Your task to perform on an android device: turn off picture-in-picture Image 0: 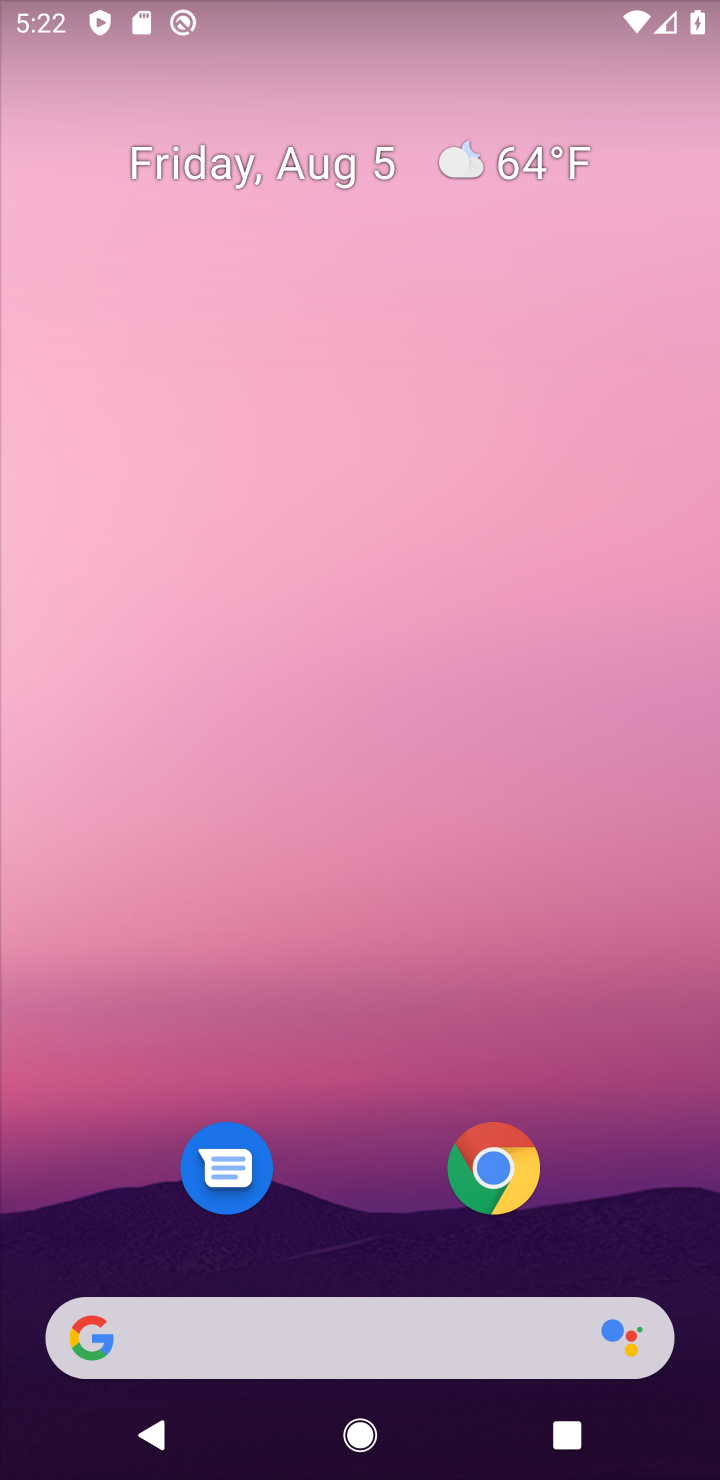
Step 0: drag from (368, 1225) to (368, 1151)
Your task to perform on an android device: turn off picture-in-picture Image 1: 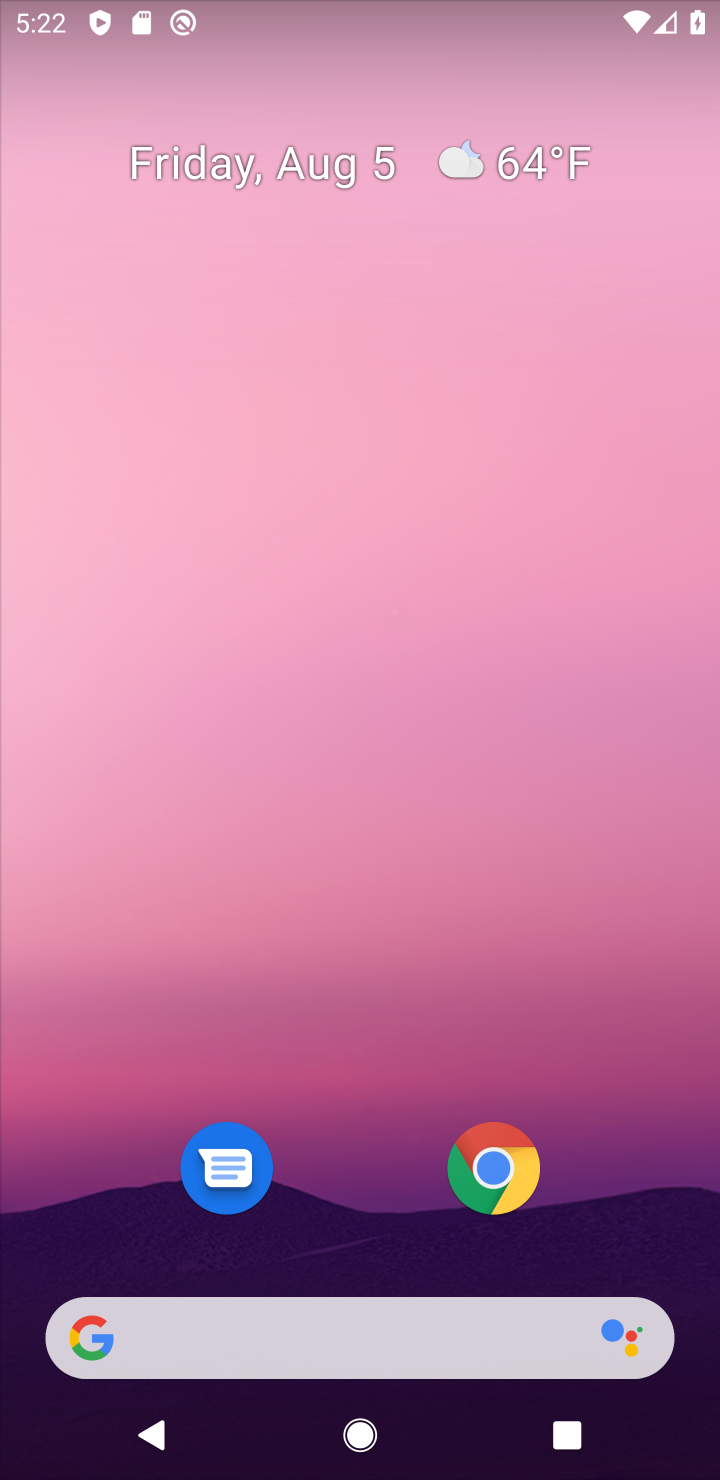
Step 1: click (495, 1170)
Your task to perform on an android device: turn off picture-in-picture Image 2: 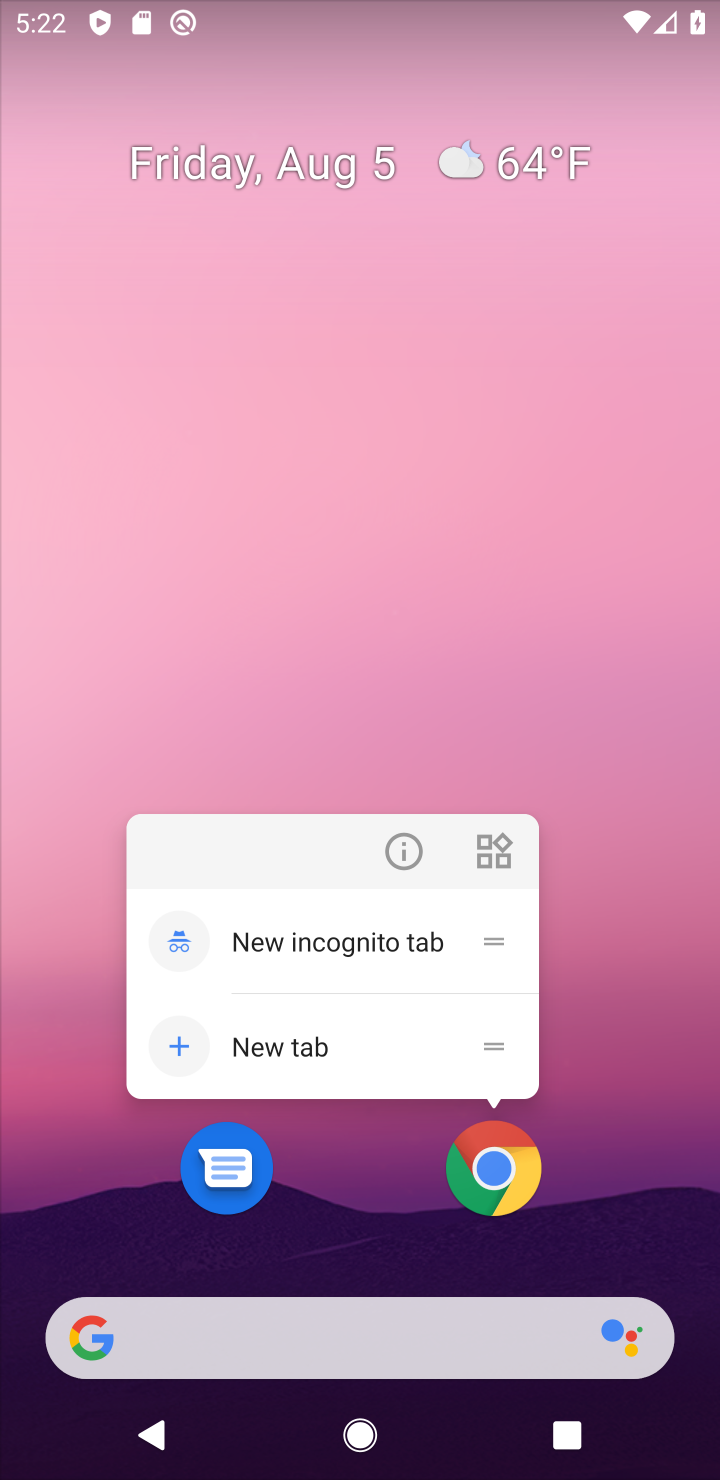
Step 2: click (399, 845)
Your task to perform on an android device: turn off picture-in-picture Image 3: 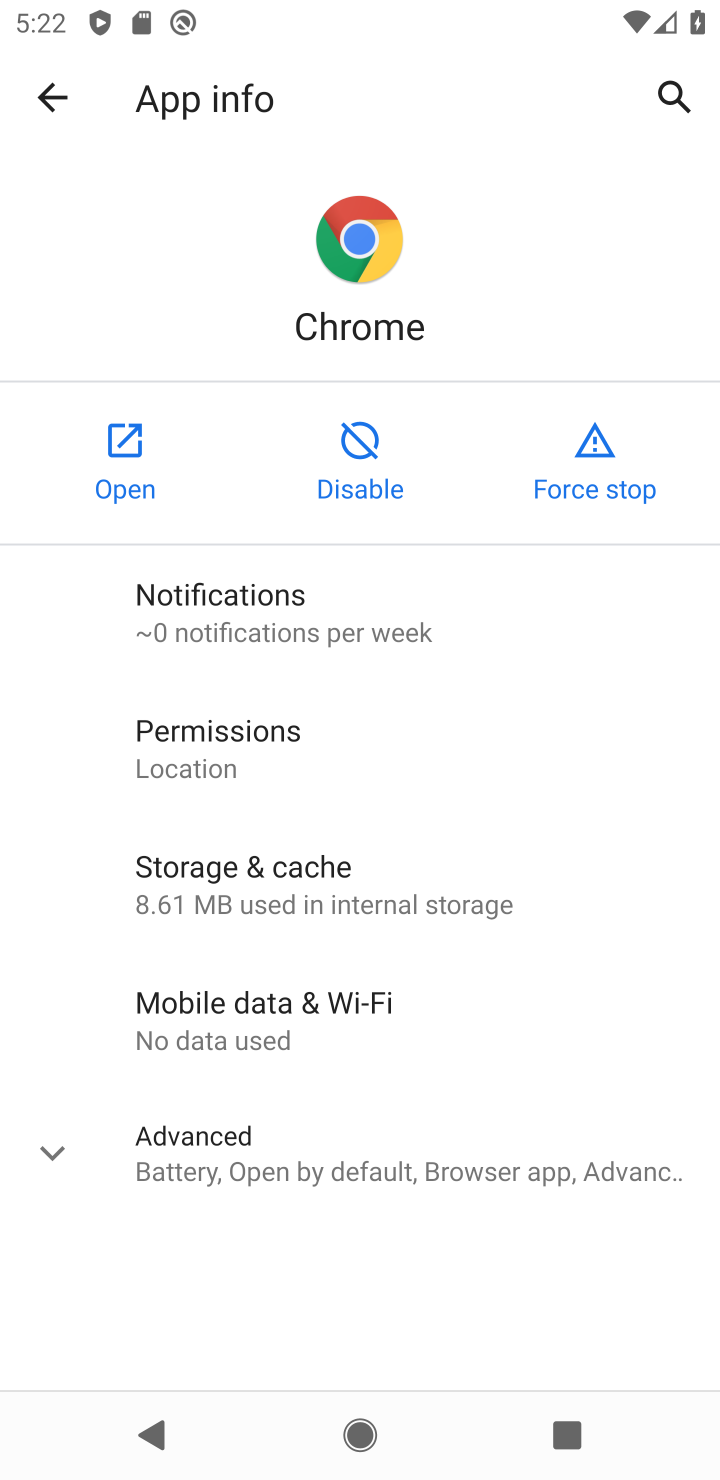
Step 3: click (205, 1171)
Your task to perform on an android device: turn off picture-in-picture Image 4: 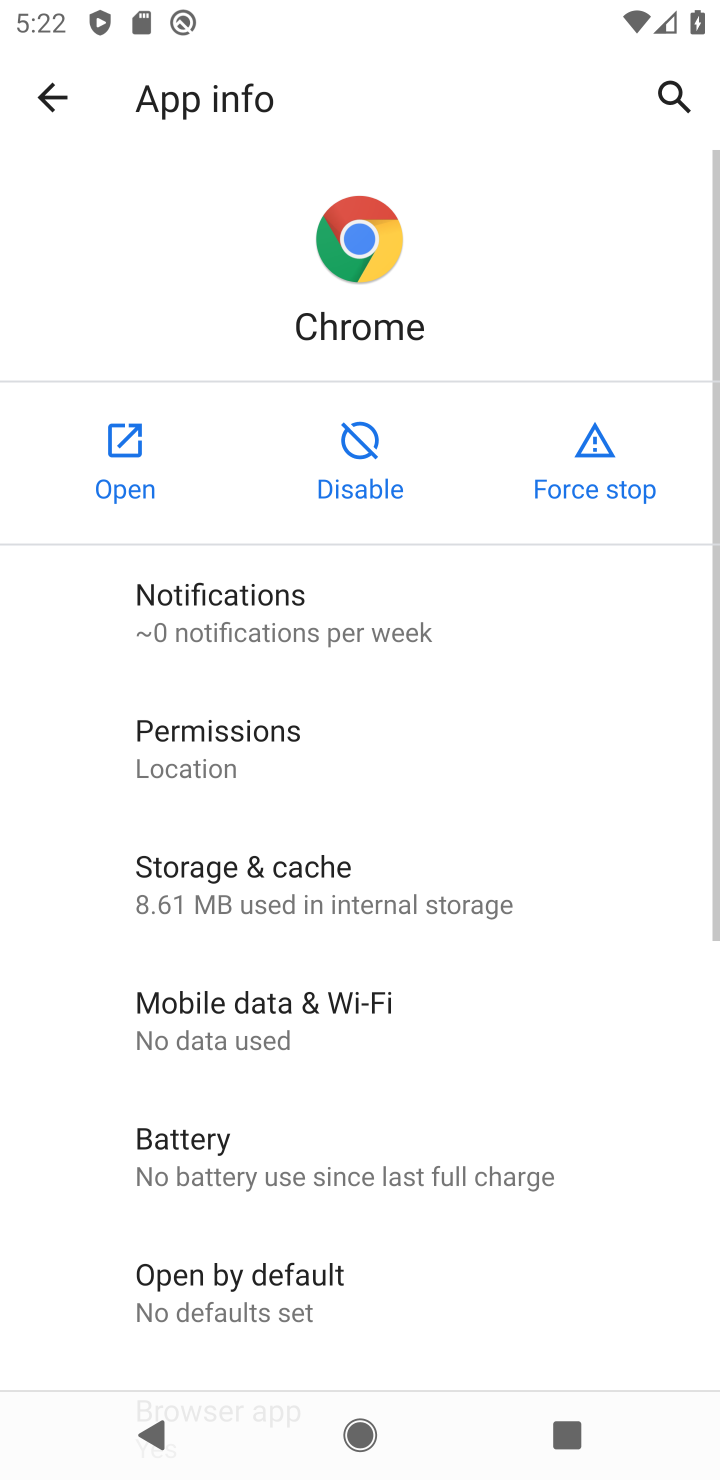
Step 4: drag from (531, 1297) to (408, 308)
Your task to perform on an android device: turn off picture-in-picture Image 5: 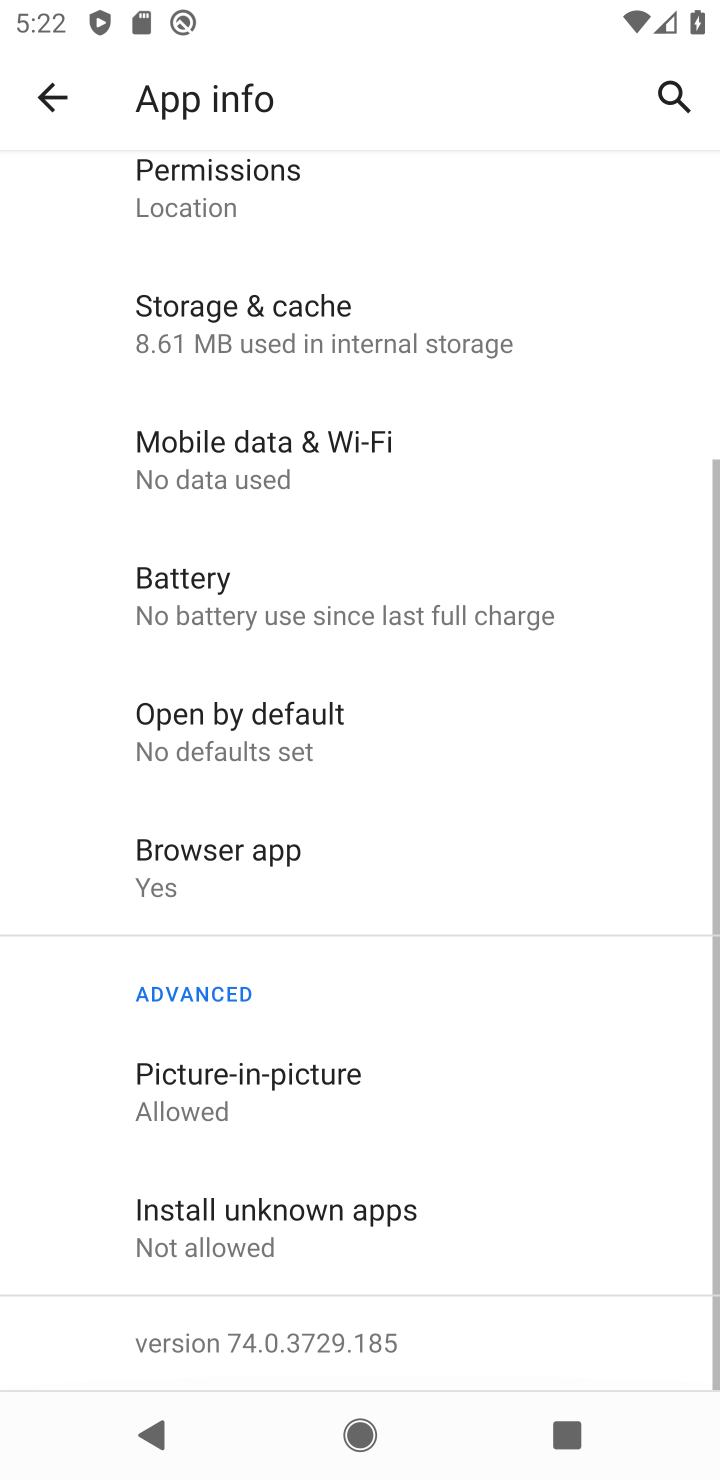
Step 5: click (224, 1150)
Your task to perform on an android device: turn off picture-in-picture Image 6: 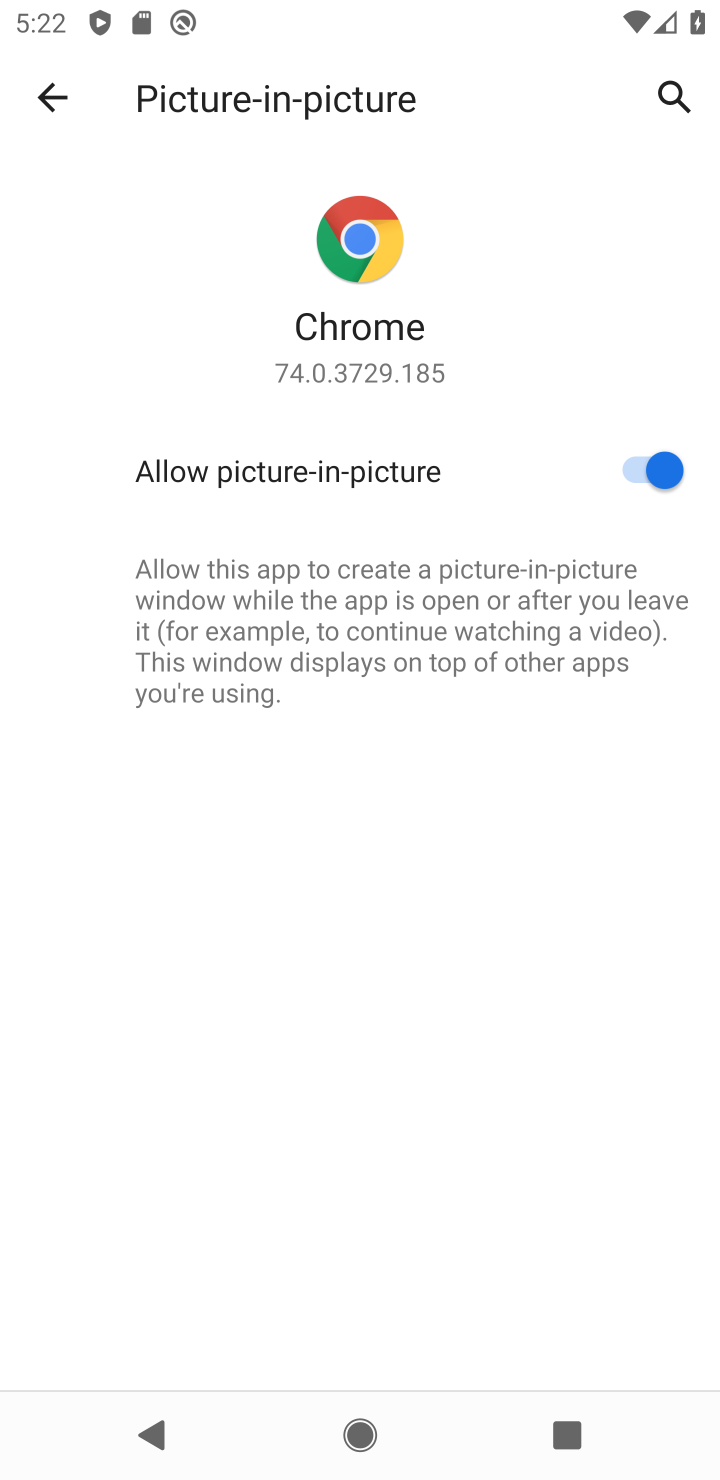
Step 6: click (661, 466)
Your task to perform on an android device: turn off picture-in-picture Image 7: 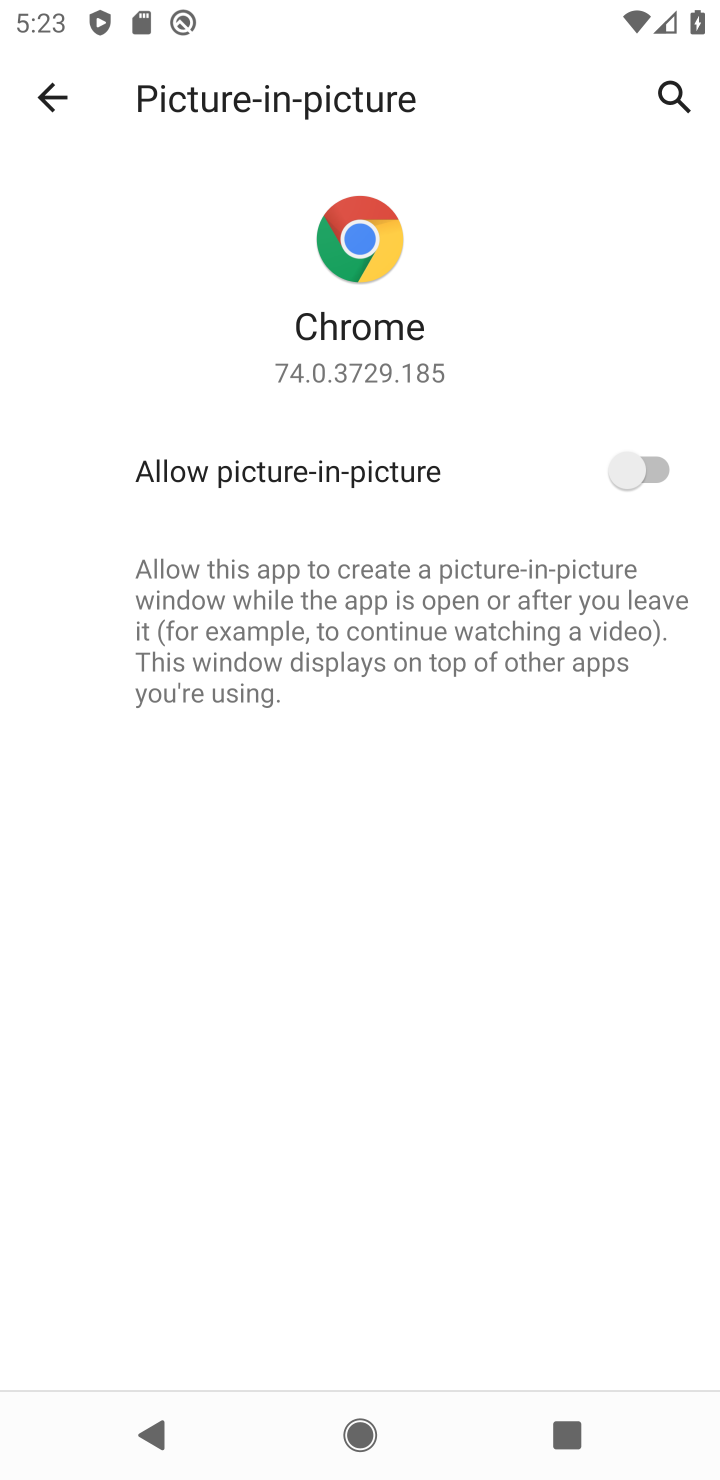
Step 7: task complete